Your task to perform on an android device: Go to notification settings Image 0: 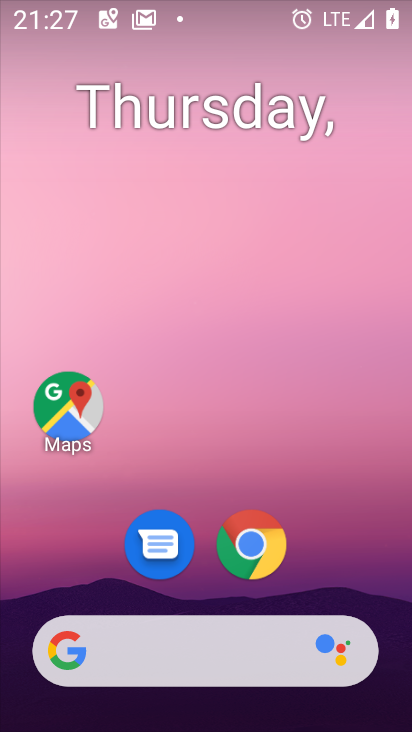
Step 0: drag from (200, 602) to (217, 382)
Your task to perform on an android device: Go to notification settings Image 1: 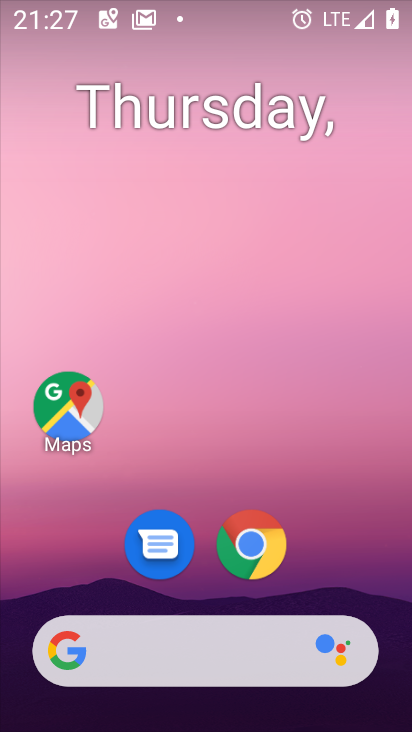
Step 1: click (209, 606)
Your task to perform on an android device: Go to notification settings Image 2: 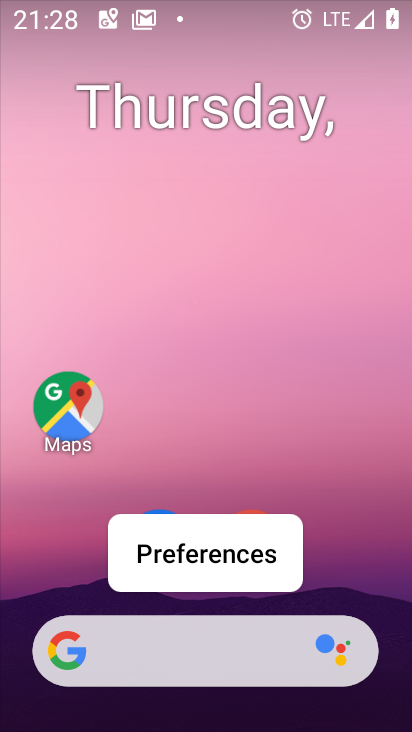
Step 2: click (206, 494)
Your task to perform on an android device: Go to notification settings Image 3: 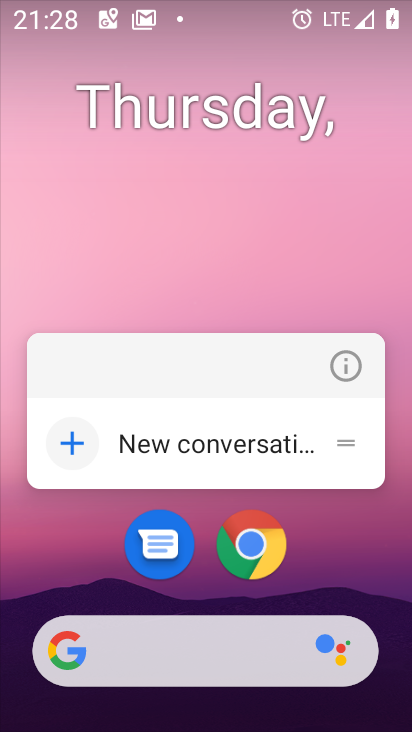
Step 3: drag from (206, 494) to (239, 110)
Your task to perform on an android device: Go to notification settings Image 4: 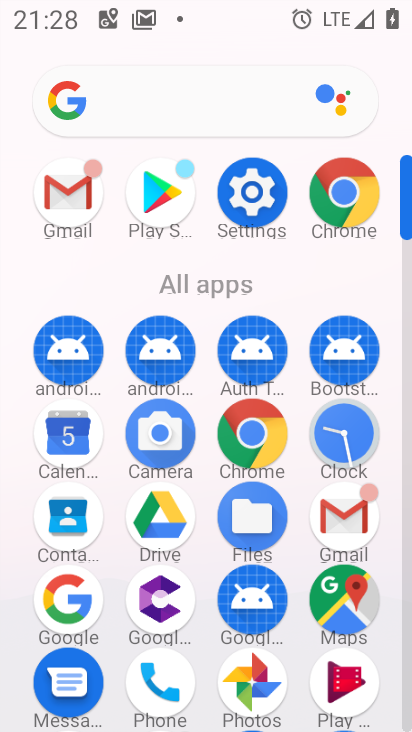
Step 4: click (252, 221)
Your task to perform on an android device: Go to notification settings Image 5: 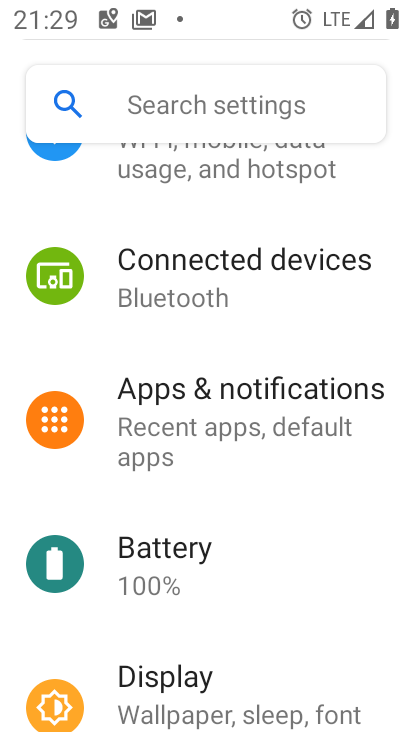
Step 5: click (247, 392)
Your task to perform on an android device: Go to notification settings Image 6: 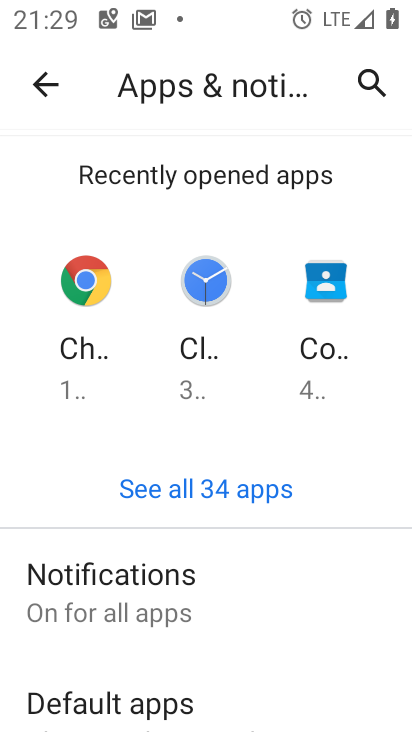
Step 6: click (212, 560)
Your task to perform on an android device: Go to notification settings Image 7: 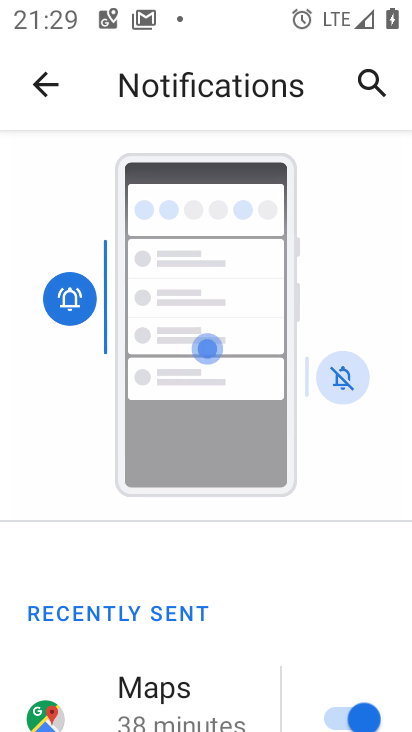
Step 7: task complete